Your task to perform on an android device: check battery use Image 0: 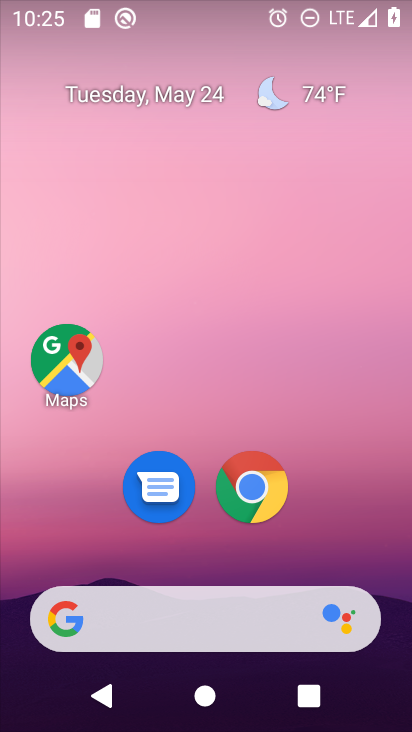
Step 0: drag from (356, 583) to (309, 0)
Your task to perform on an android device: check battery use Image 1: 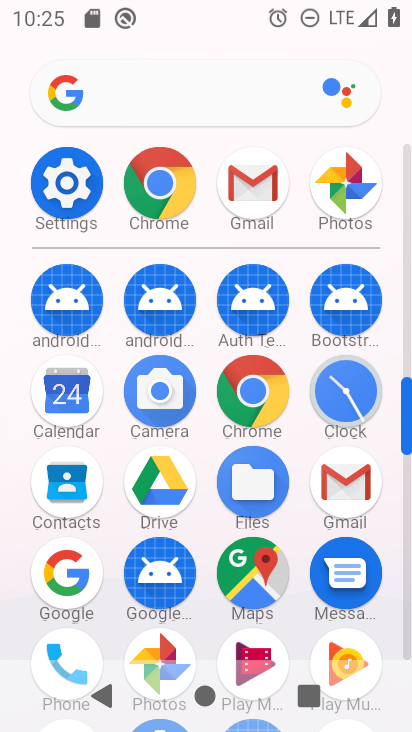
Step 1: click (61, 179)
Your task to perform on an android device: check battery use Image 2: 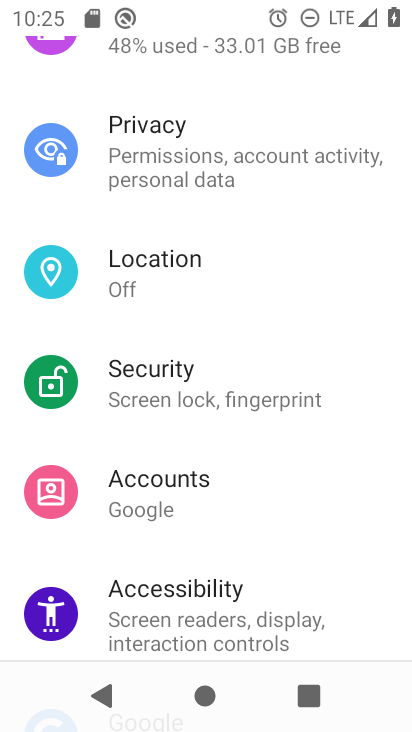
Step 2: drag from (305, 285) to (316, 499)
Your task to perform on an android device: check battery use Image 3: 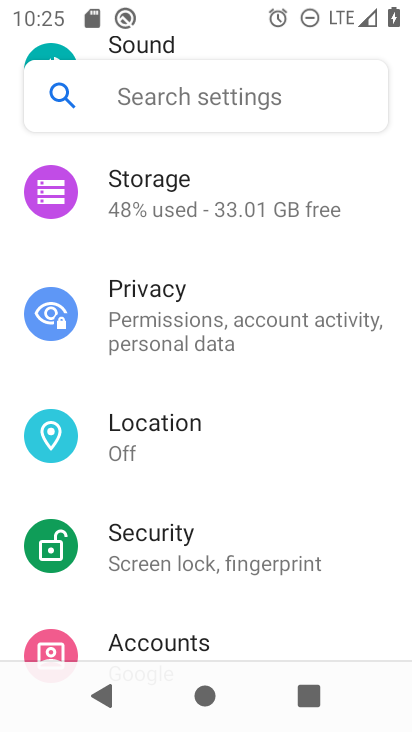
Step 3: drag from (278, 234) to (281, 513)
Your task to perform on an android device: check battery use Image 4: 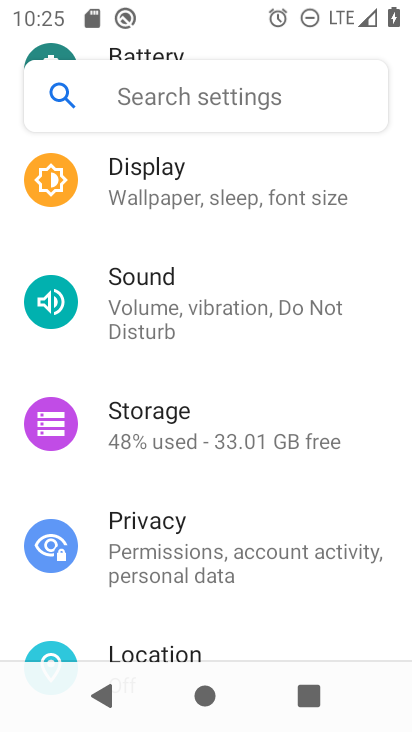
Step 4: drag from (260, 267) to (278, 536)
Your task to perform on an android device: check battery use Image 5: 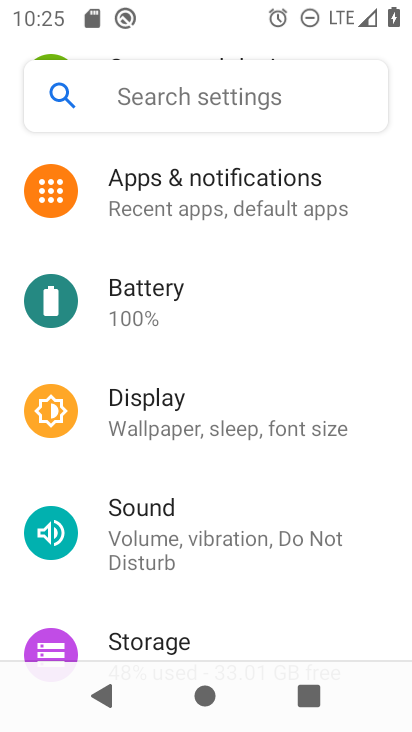
Step 5: click (133, 299)
Your task to perform on an android device: check battery use Image 6: 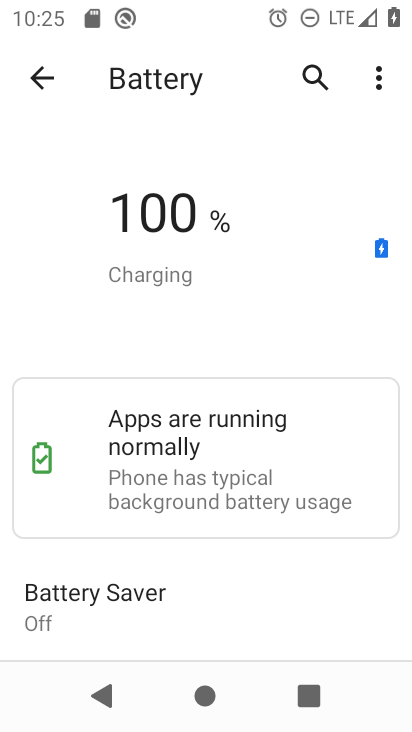
Step 6: click (377, 79)
Your task to perform on an android device: check battery use Image 7: 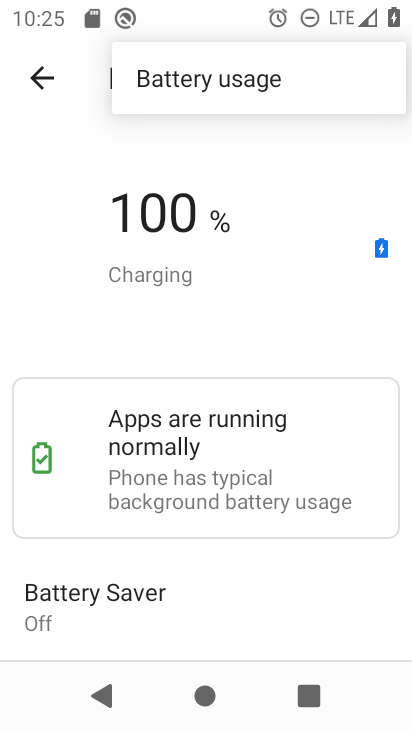
Step 7: click (237, 83)
Your task to perform on an android device: check battery use Image 8: 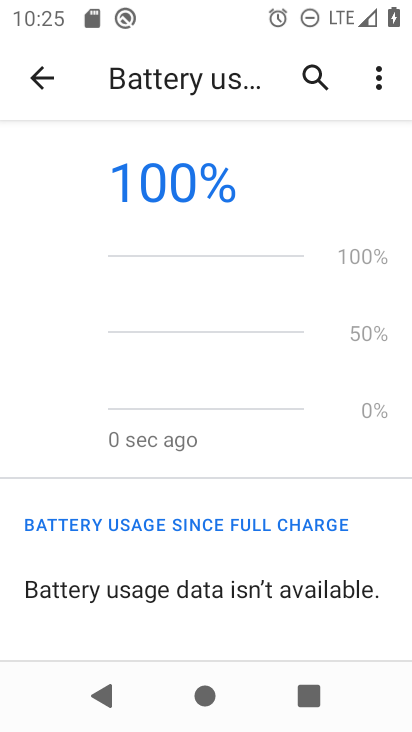
Step 8: task complete